Your task to perform on an android device: toggle improve location accuracy Image 0: 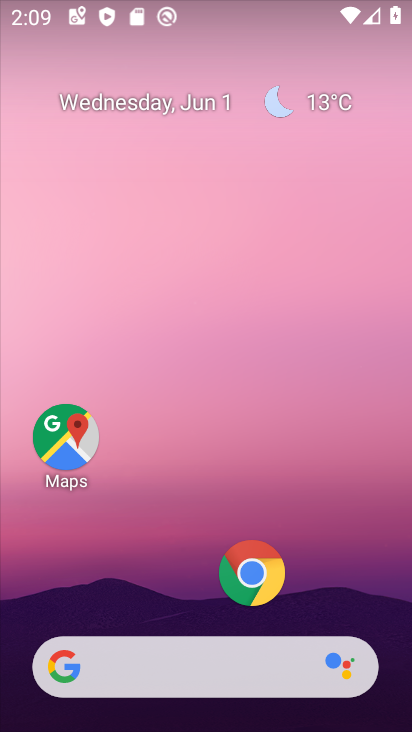
Step 0: drag from (177, 615) to (142, 108)
Your task to perform on an android device: toggle improve location accuracy Image 1: 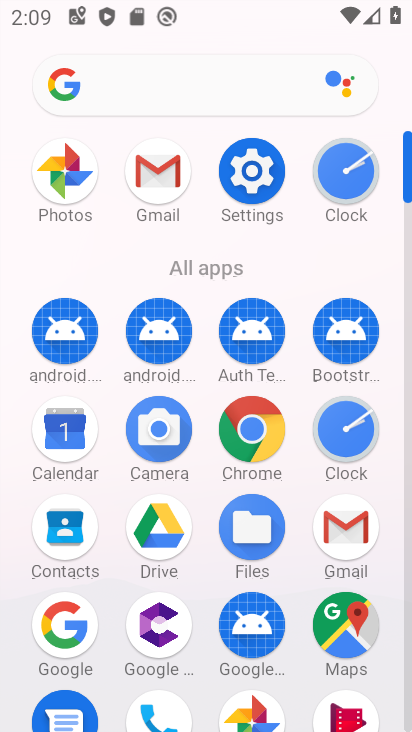
Step 1: click (245, 191)
Your task to perform on an android device: toggle improve location accuracy Image 2: 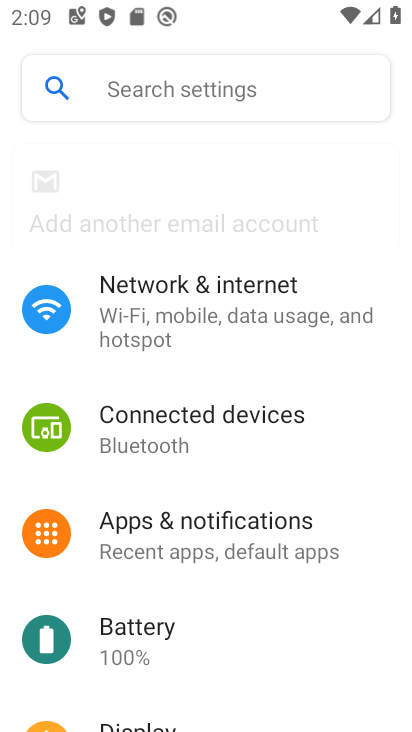
Step 2: drag from (220, 589) to (190, 84)
Your task to perform on an android device: toggle improve location accuracy Image 3: 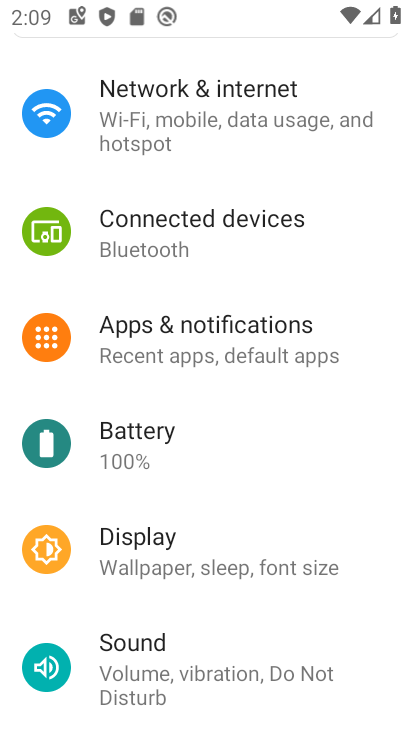
Step 3: drag from (237, 646) to (190, 278)
Your task to perform on an android device: toggle improve location accuracy Image 4: 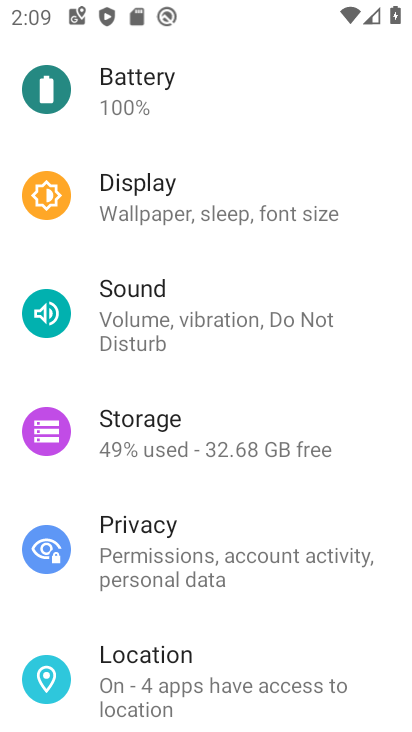
Step 4: click (211, 656)
Your task to perform on an android device: toggle improve location accuracy Image 5: 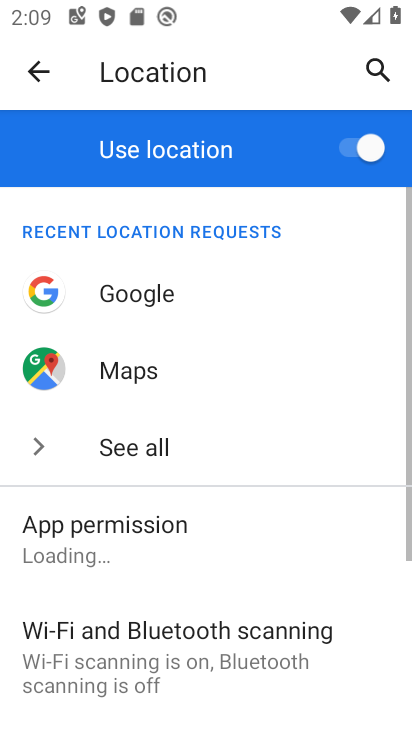
Step 5: drag from (198, 610) to (121, 123)
Your task to perform on an android device: toggle improve location accuracy Image 6: 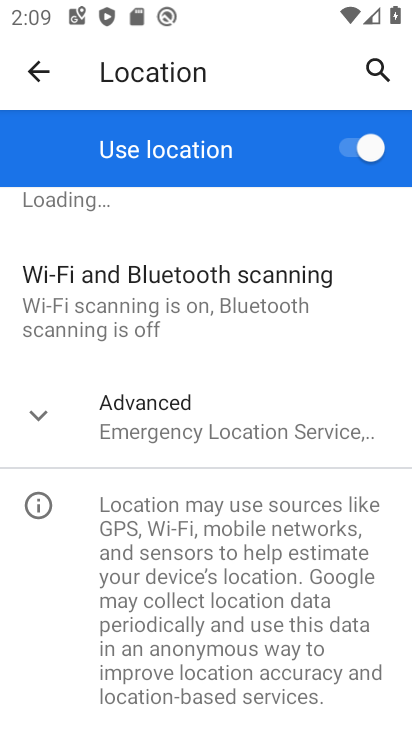
Step 6: click (85, 411)
Your task to perform on an android device: toggle improve location accuracy Image 7: 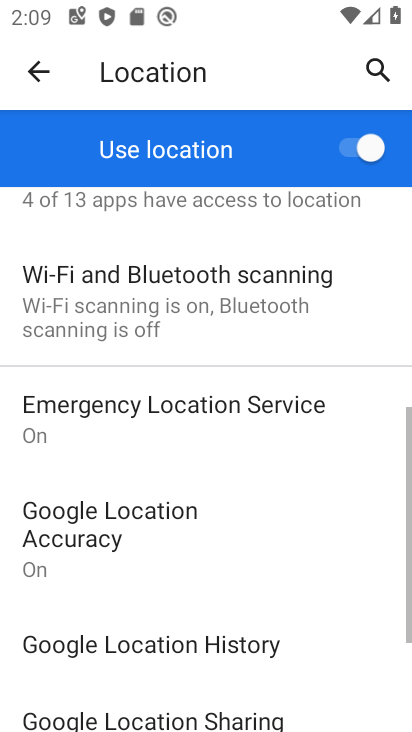
Step 7: click (110, 536)
Your task to perform on an android device: toggle improve location accuracy Image 8: 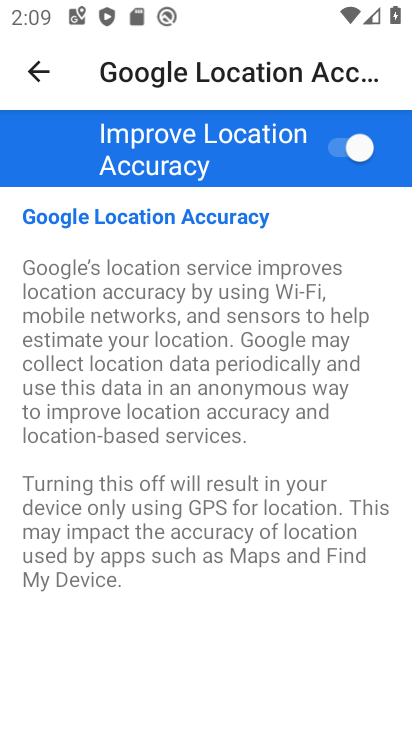
Step 8: click (347, 147)
Your task to perform on an android device: toggle improve location accuracy Image 9: 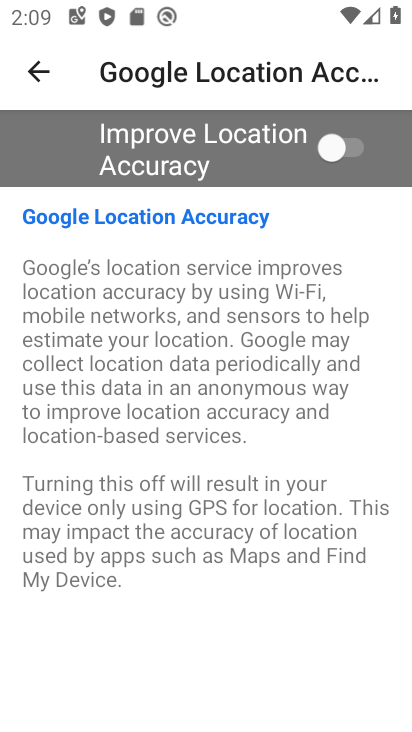
Step 9: task complete